Your task to perform on an android device: Open Maps and search for coffee Image 0: 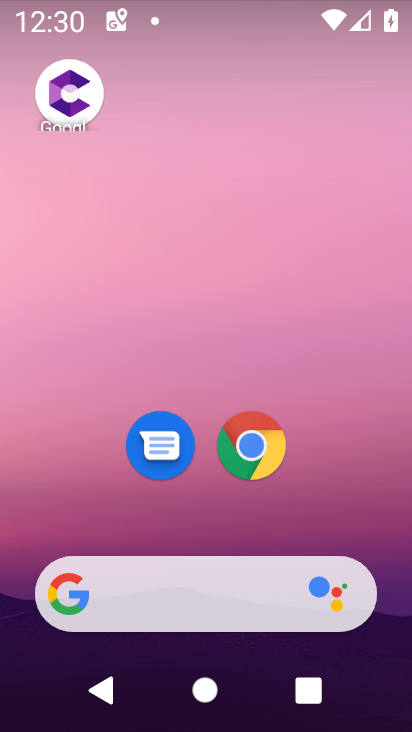
Step 0: drag from (346, 493) to (264, 9)
Your task to perform on an android device: Open Maps and search for coffee Image 1: 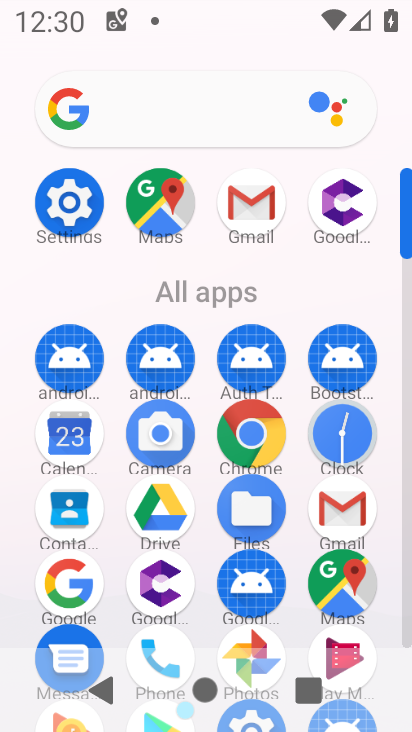
Step 1: click (341, 586)
Your task to perform on an android device: Open Maps and search for coffee Image 2: 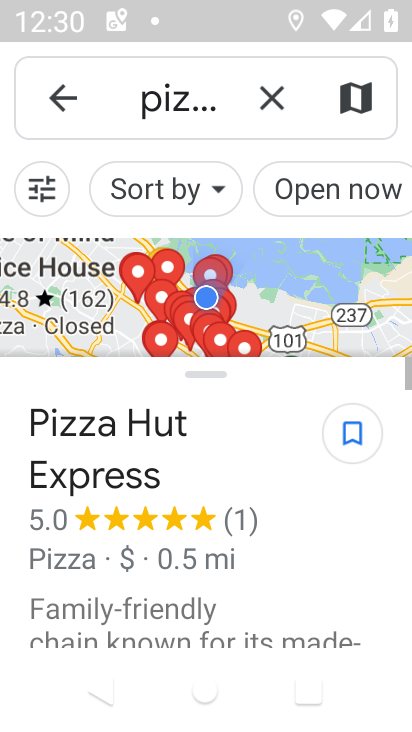
Step 2: click (269, 96)
Your task to perform on an android device: Open Maps and search for coffee Image 3: 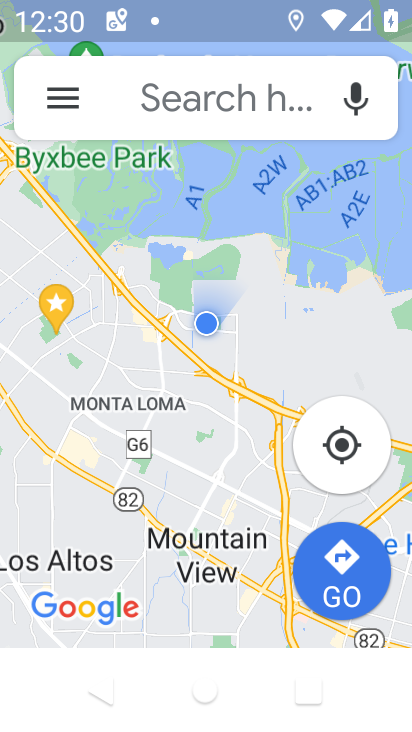
Step 3: click (269, 96)
Your task to perform on an android device: Open Maps and search for coffee Image 4: 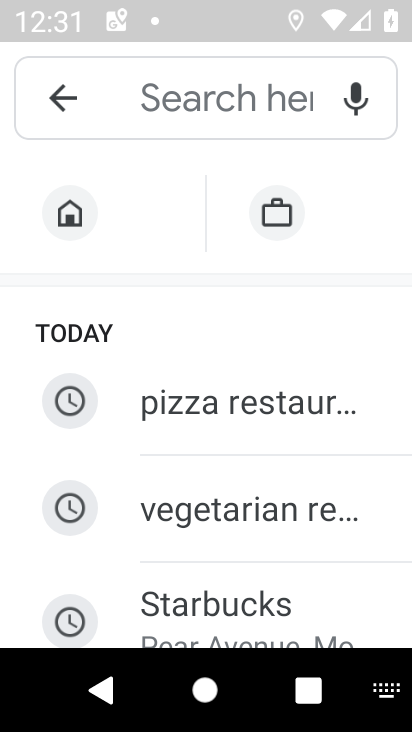
Step 4: type "coffee"
Your task to perform on an android device: Open Maps and search for coffee Image 5: 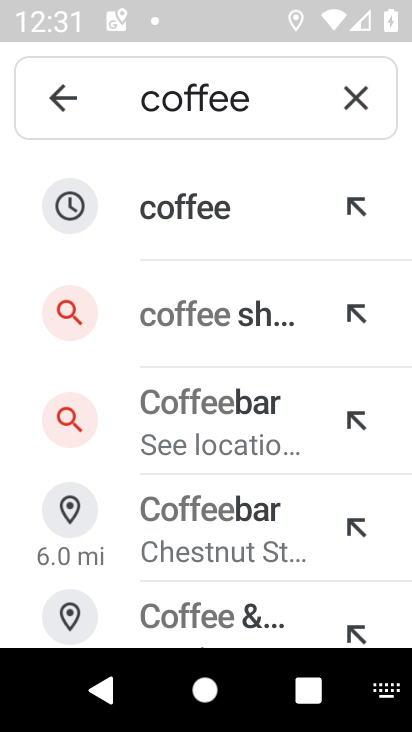
Step 5: click (187, 210)
Your task to perform on an android device: Open Maps and search for coffee Image 6: 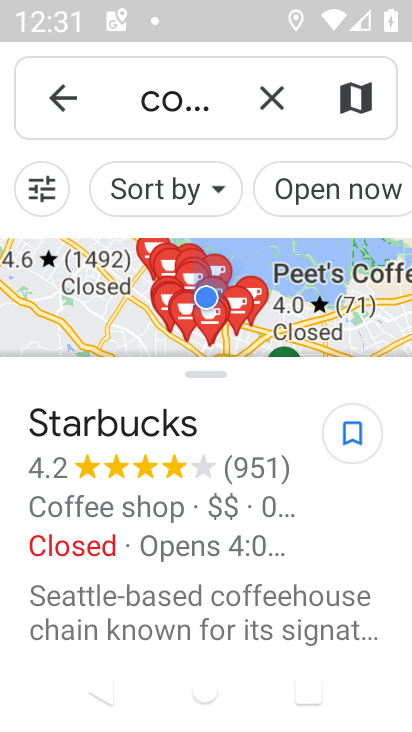
Step 6: task complete